Your task to perform on an android device: install app "Spotify: Music and Podcasts" Image 0: 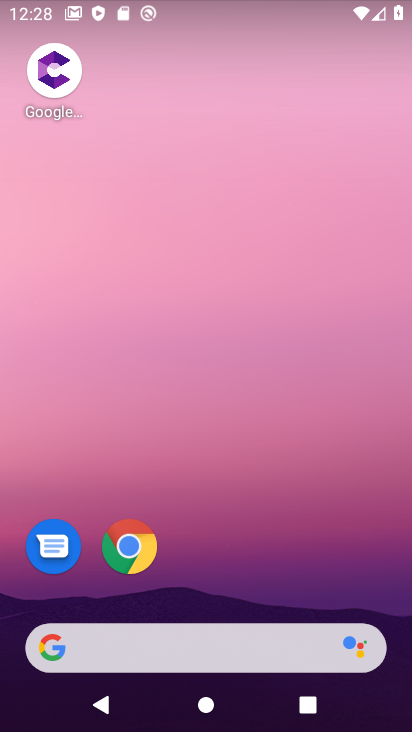
Step 0: drag from (218, 670) to (0, 10)
Your task to perform on an android device: install app "Spotify: Music and Podcasts" Image 1: 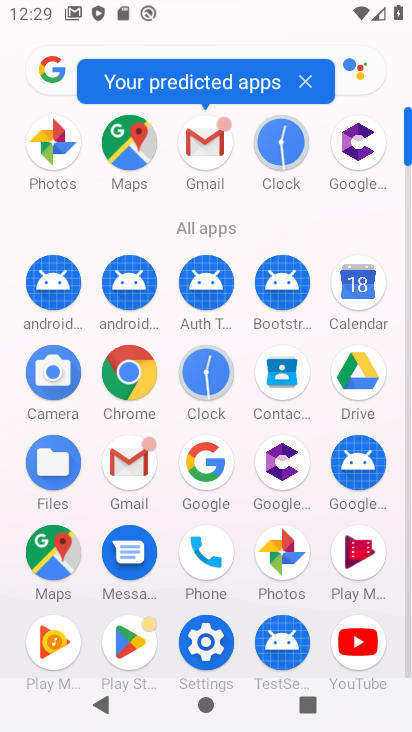
Step 1: click (132, 650)
Your task to perform on an android device: install app "Spotify: Music and Podcasts" Image 2: 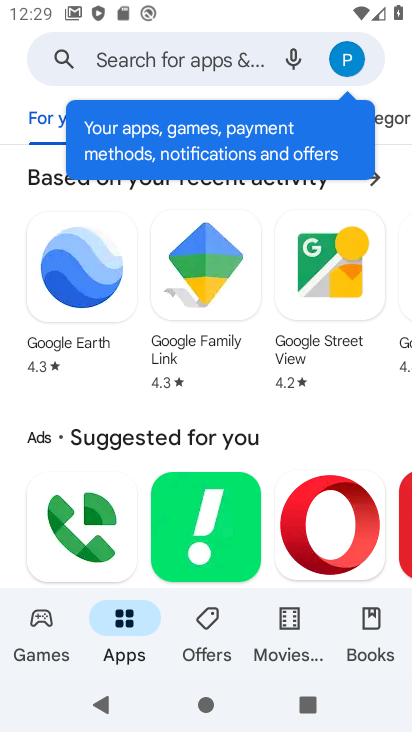
Step 2: click (190, 66)
Your task to perform on an android device: install app "Spotify: Music and Podcasts" Image 3: 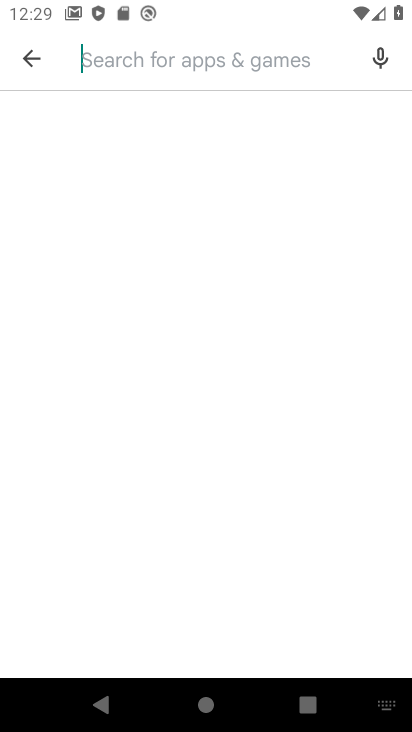
Step 3: type "spotify"
Your task to perform on an android device: install app "Spotify: Music and Podcasts" Image 4: 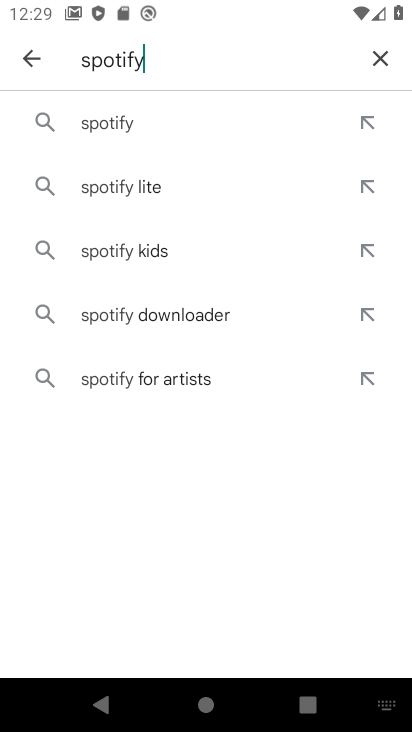
Step 4: click (148, 131)
Your task to perform on an android device: install app "Spotify: Music and Podcasts" Image 5: 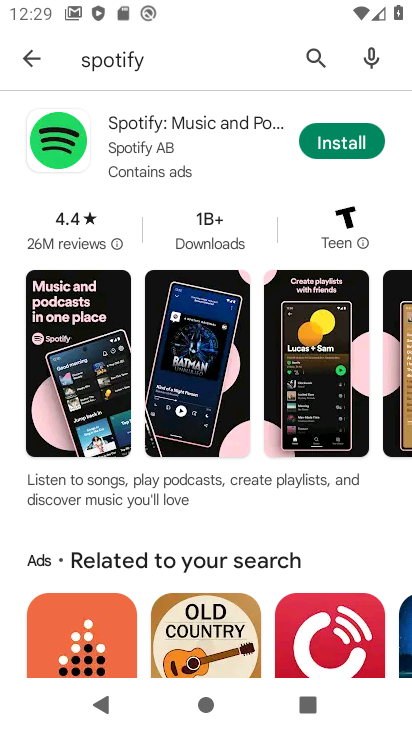
Step 5: click (339, 144)
Your task to perform on an android device: install app "Spotify: Music and Podcasts" Image 6: 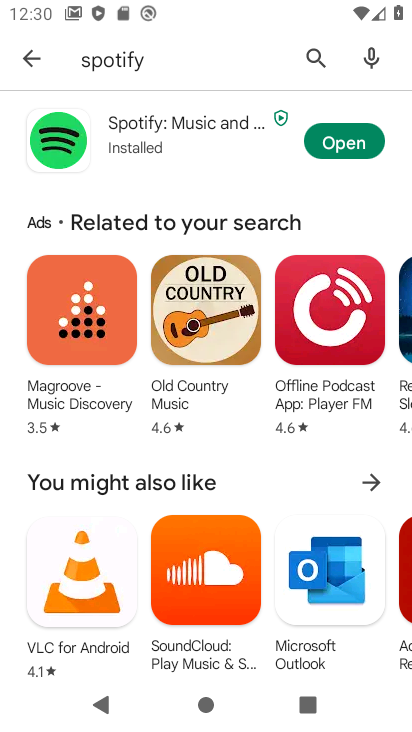
Step 6: task complete